Your task to perform on an android device: toggle priority inbox in the gmail app Image 0: 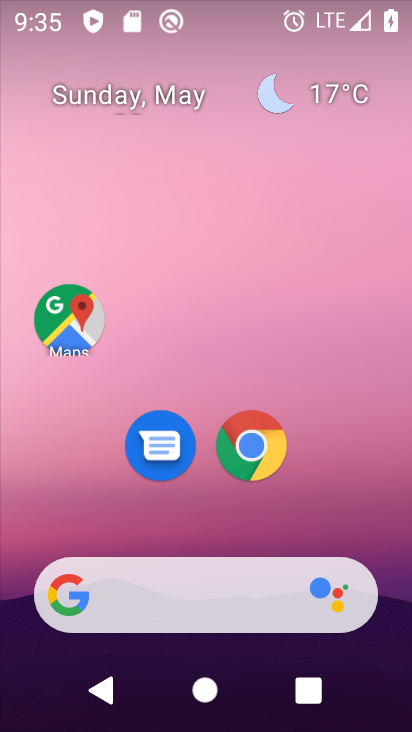
Step 0: drag from (223, 511) to (245, 39)
Your task to perform on an android device: toggle priority inbox in the gmail app Image 1: 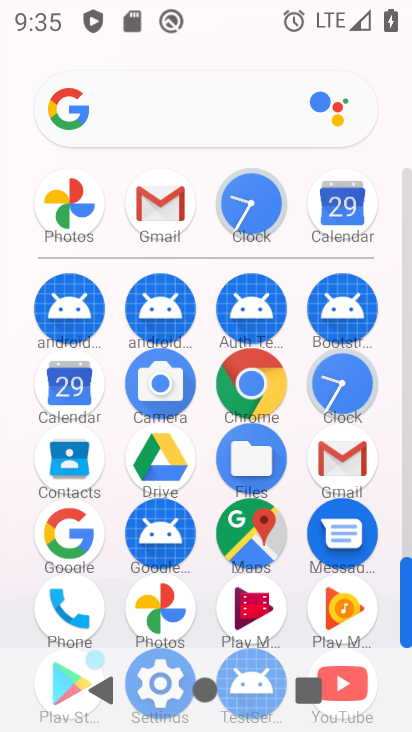
Step 1: click (339, 444)
Your task to perform on an android device: toggle priority inbox in the gmail app Image 2: 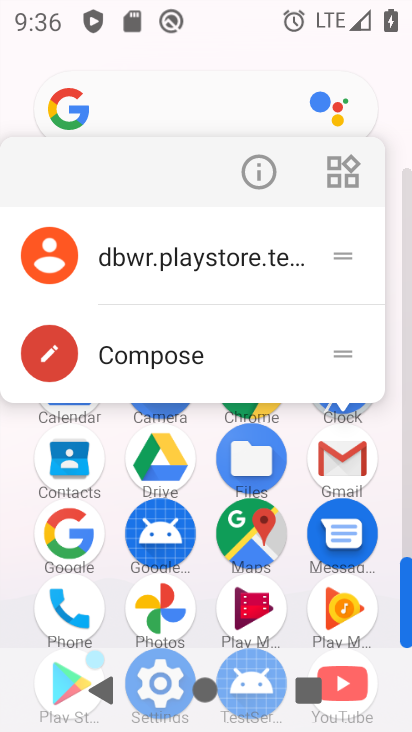
Step 2: click (262, 176)
Your task to perform on an android device: toggle priority inbox in the gmail app Image 3: 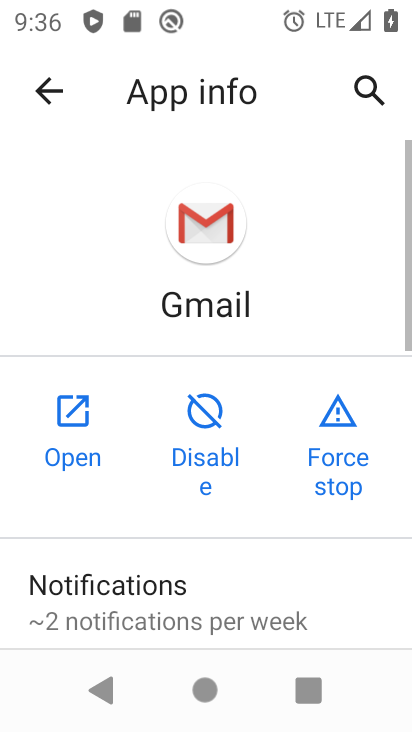
Step 3: click (72, 424)
Your task to perform on an android device: toggle priority inbox in the gmail app Image 4: 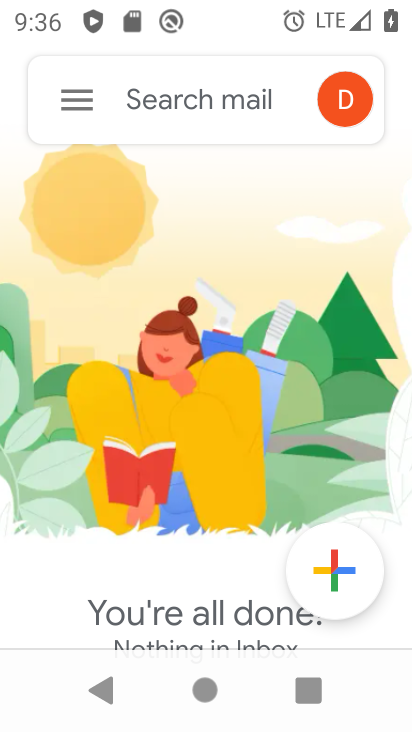
Step 4: click (72, 86)
Your task to perform on an android device: toggle priority inbox in the gmail app Image 5: 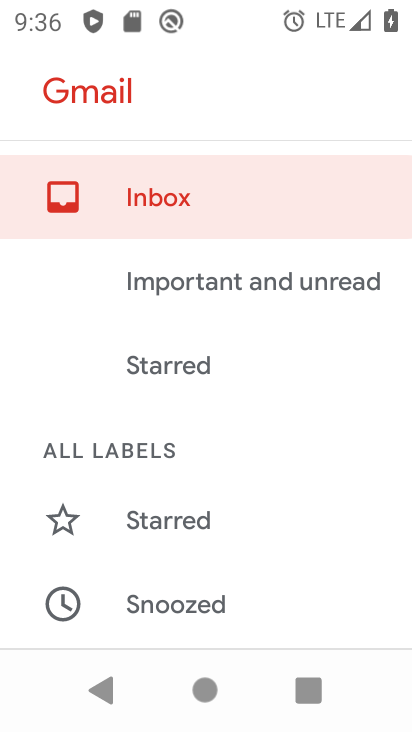
Step 5: drag from (229, 466) to (312, 42)
Your task to perform on an android device: toggle priority inbox in the gmail app Image 6: 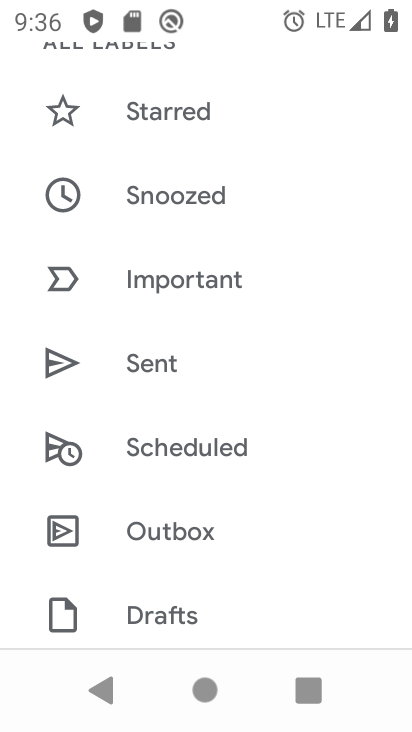
Step 6: click (348, 72)
Your task to perform on an android device: toggle priority inbox in the gmail app Image 7: 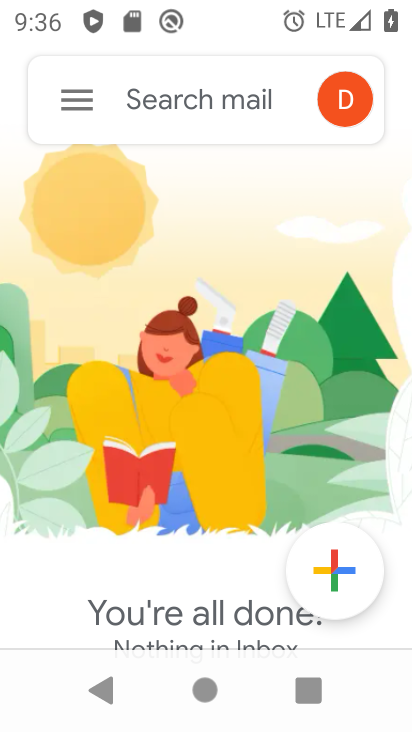
Step 7: drag from (204, 493) to (279, 182)
Your task to perform on an android device: toggle priority inbox in the gmail app Image 8: 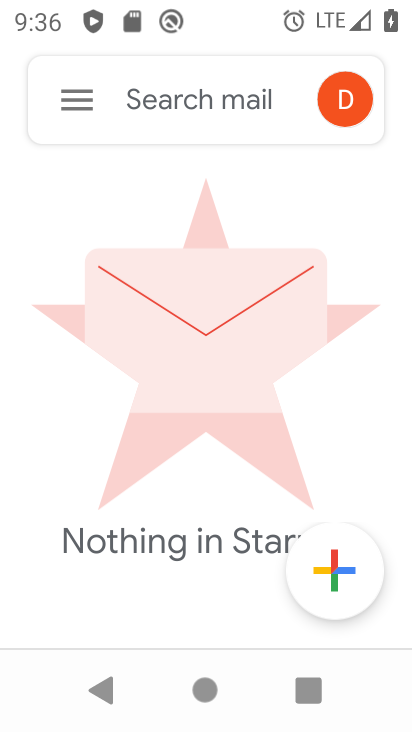
Step 8: click (80, 85)
Your task to perform on an android device: toggle priority inbox in the gmail app Image 9: 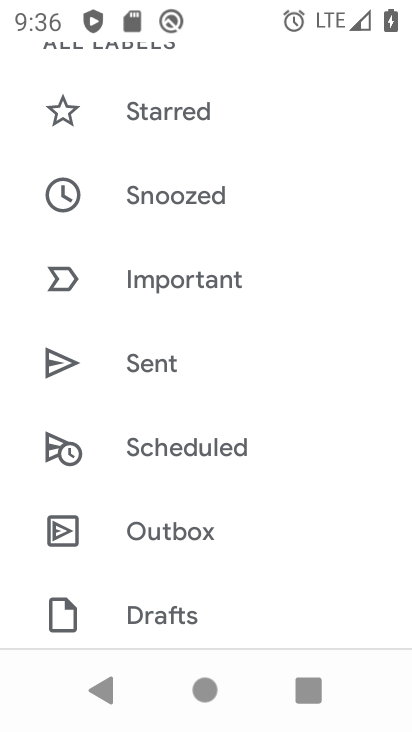
Step 9: drag from (130, 488) to (225, 35)
Your task to perform on an android device: toggle priority inbox in the gmail app Image 10: 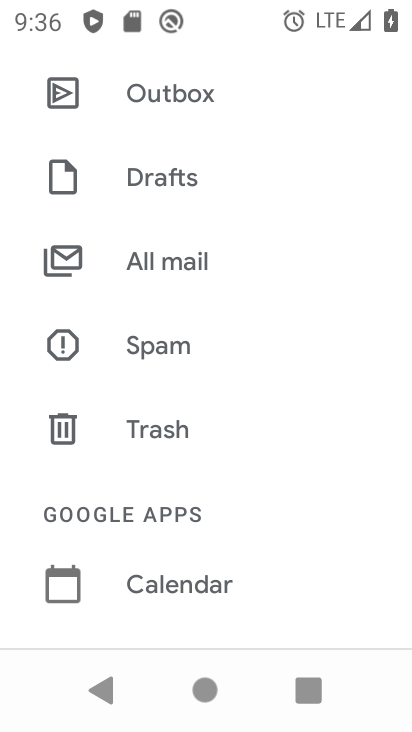
Step 10: drag from (166, 515) to (268, 19)
Your task to perform on an android device: toggle priority inbox in the gmail app Image 11: 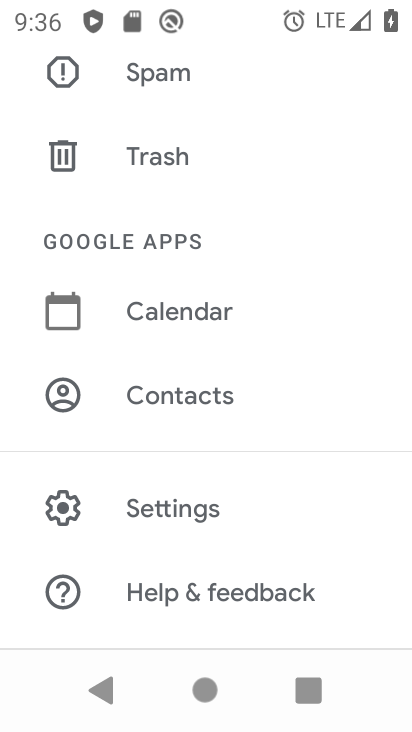
Step 11: click (177, 511)
Your task to perform on an android device: toggle priority inbox in the gmail app Image 12: 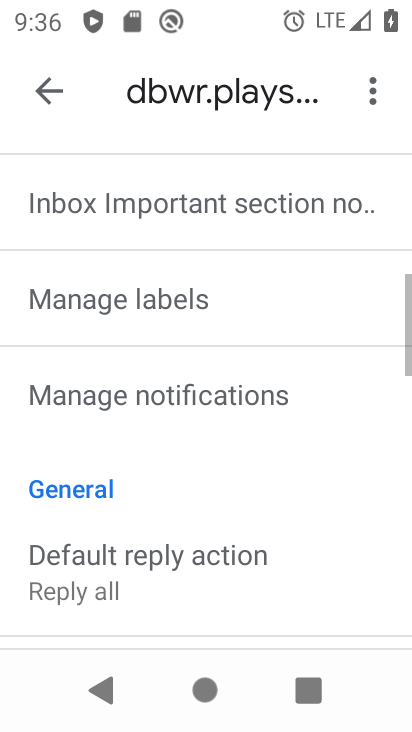
Step 12: drag from (136, 313) to (252, 725)
Your task to perform on an android device: toggle priority inbox in the gmail app Image 13: 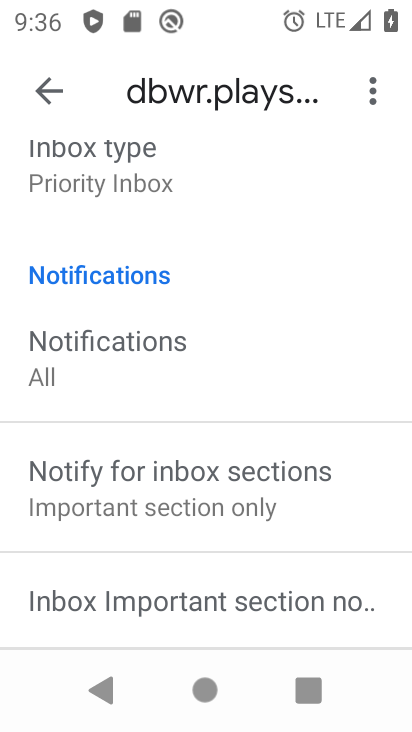
Step 13: click (139, 199)
Your task to perform on an android device: toggle priority inbox in the gmail app Image 14: 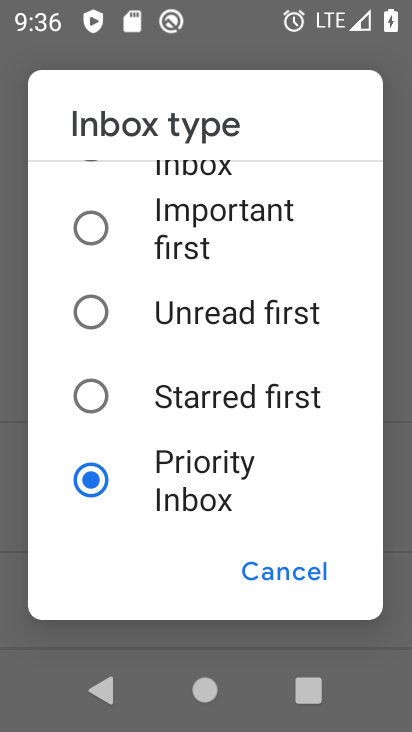
Step 14: drag from (152, 224) to (185, 571)
Your task to perform on an android device: toggle priority inbox in the gmail app Image 15: 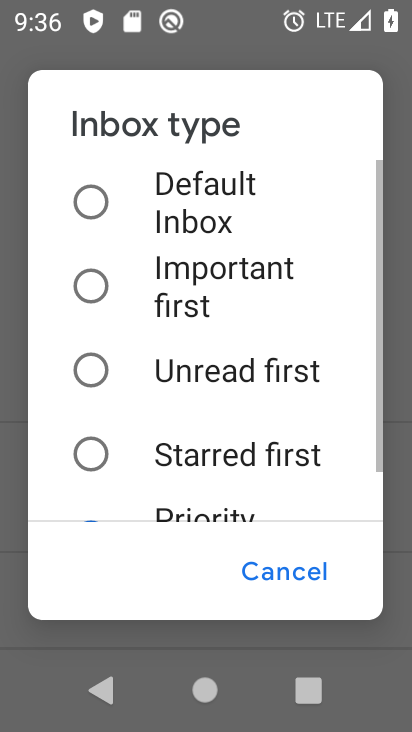
Step 15: click (161, 215)
Your task to perform on an android device: toggle priority inbox in the gmail app Image 16: 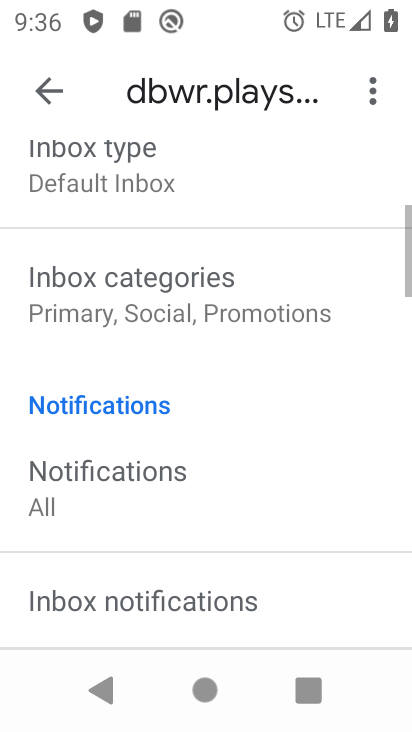
Step 16: task complete